Your task to perform on an android device: turn off smart reply in the gmail app Image 0: 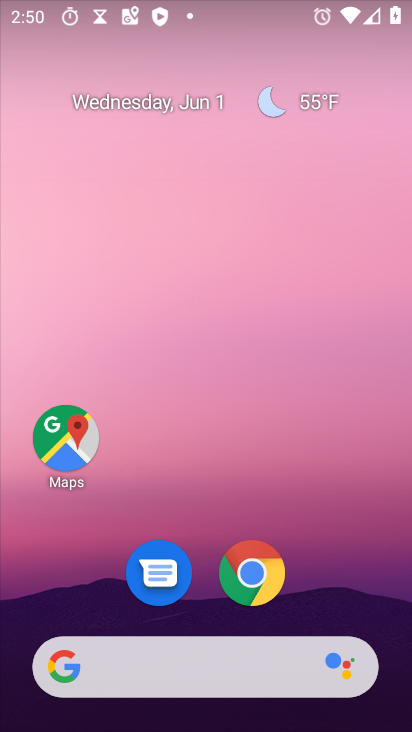
Step 0: drag from (369, 589) to (288, 97)
Your task to perform on an android device: turn off smart reply in the gmail app Image 1: 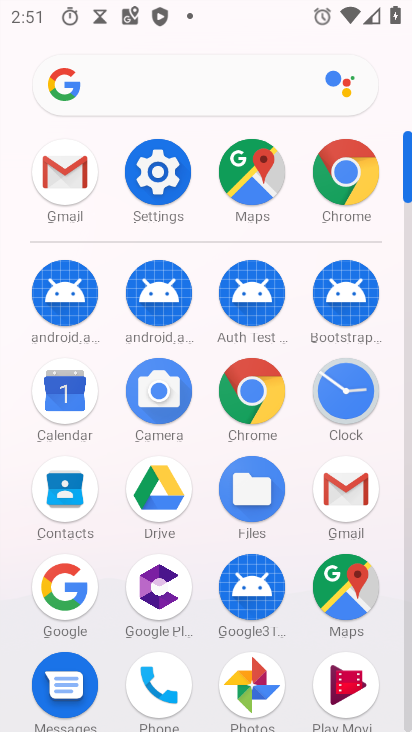
Step 1: click (80, 174)
Your task to perform on an android device: turn off smart reply in the gmail app Image 2: 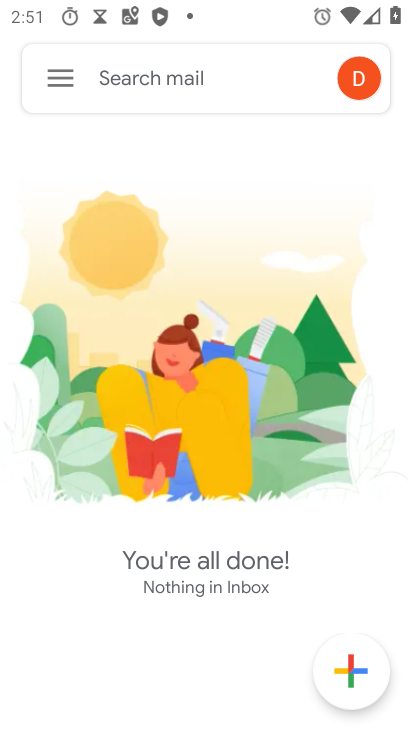
Step 2: click (49, 84)
Your task to perform on an android device: turn off smart reply in the gmail app Image 3: 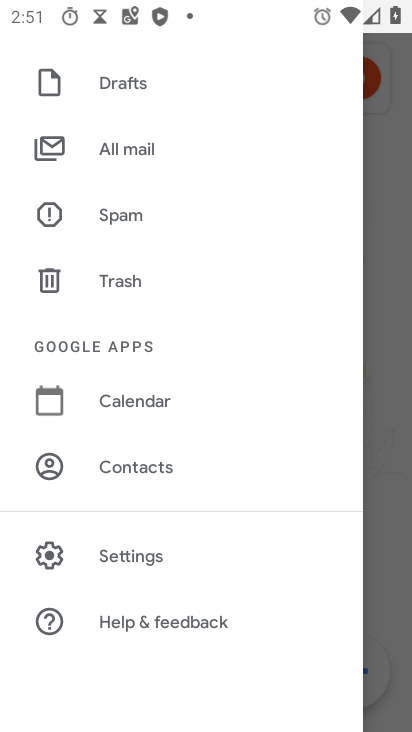
Step 3: drag from (152, 583) to (233, 186)
Your task to perform on an android device: turn off smart reply in the gmail app Image 4: 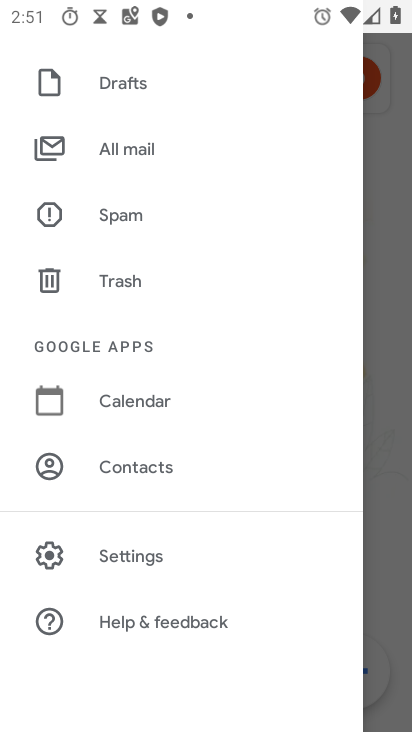
Step 4: click (128, 566)
Your task to perform on an android device: turn off smart reply in the gmail app Image 5: 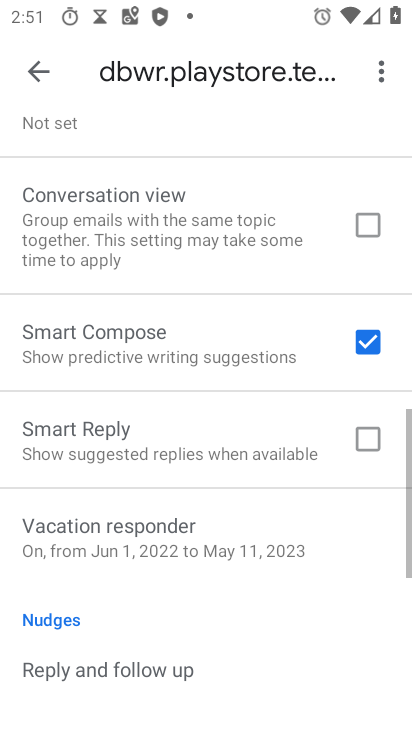
Step 5: task complete